Your task to perform on an android device: Go to Wikipedia Image 0: 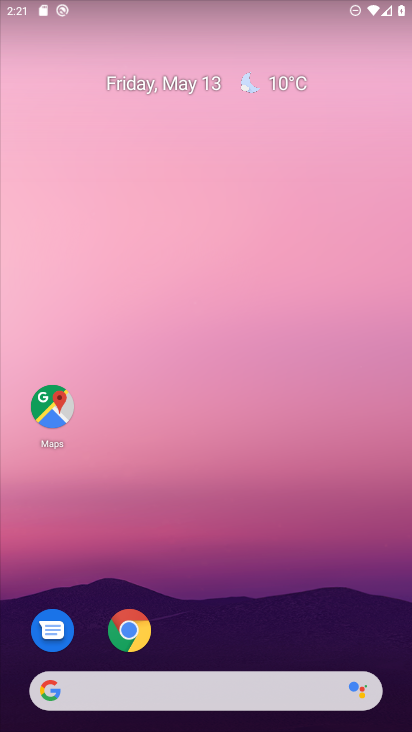
Step 0: press home button
Your task to perform on an android device: Go to Wikipedia Image 1: 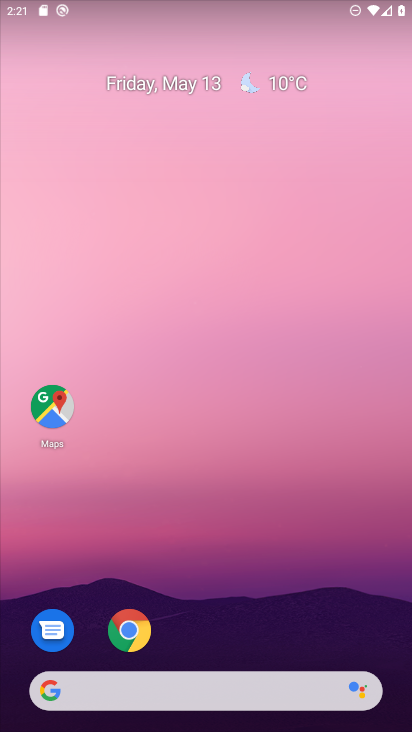
Step 1: drag from (212, 654) to (259, 90)
Your task to perform on an android device: Go to Wikipedia Image 2: 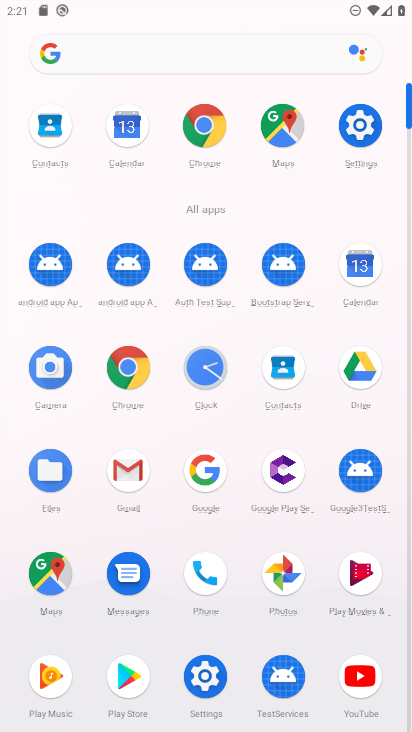
Step 2: click (130, 361)
Your task to perform on an android device: Go to Wikipedia Image 3: 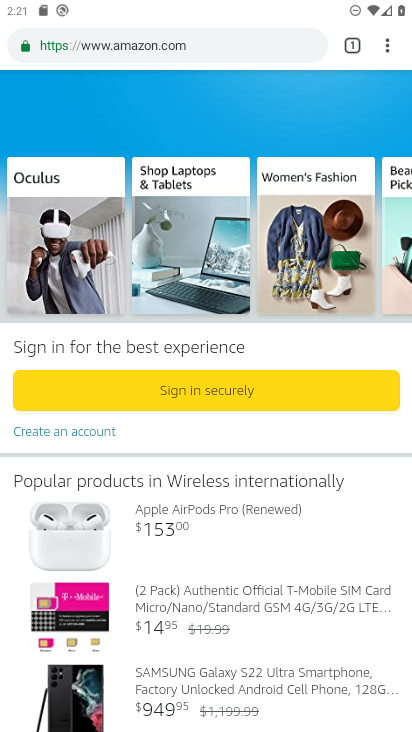
Step 3: click (348, 48)
Your task to perform on an android device: Go to Wikipedia Image 4: 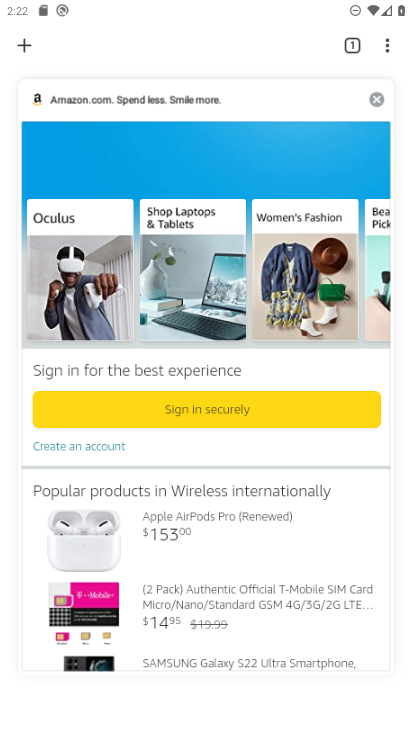
Step 4: click (375, 94)
Your task to perform on an android device: Go to Wikipedia Image 5: 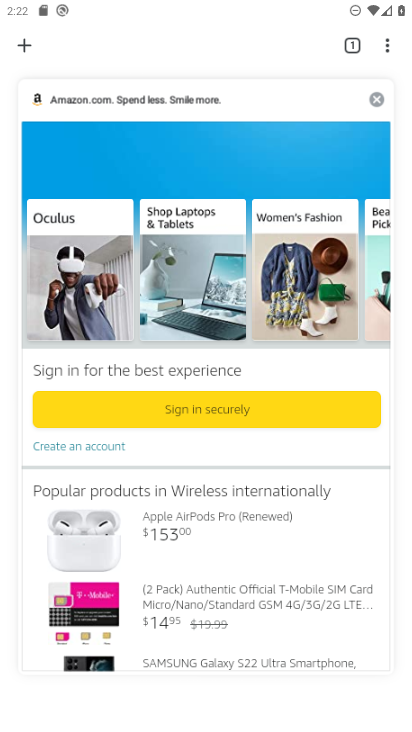
Step 5: click (374, 98)
Your task to perform on an android device: Go to Wikipedia Image 6: 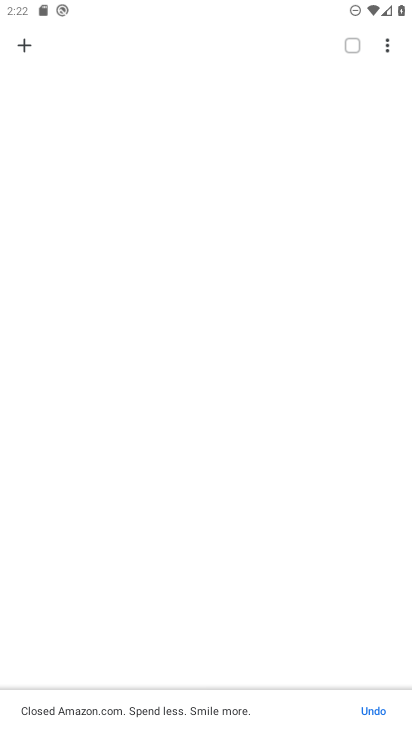
Step 6: click (26, 45)
Your task to perform on an android device: Go to Wikipedia Image 7: 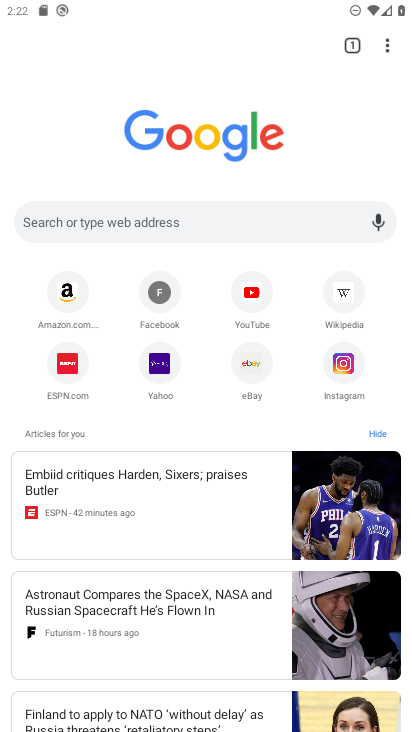
Step 7: click (346, 291)
Your task to perform on an android device: Go to Wikipedia Image 8: 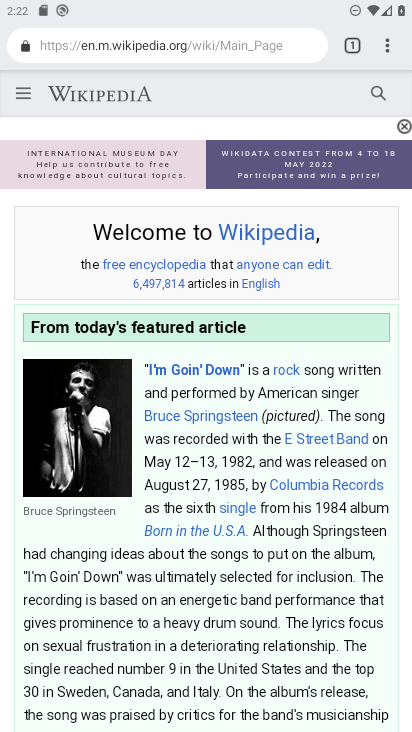
Step 8: task complete